Your task to perform on an android device: allow cookies in the chrome app Image 0: 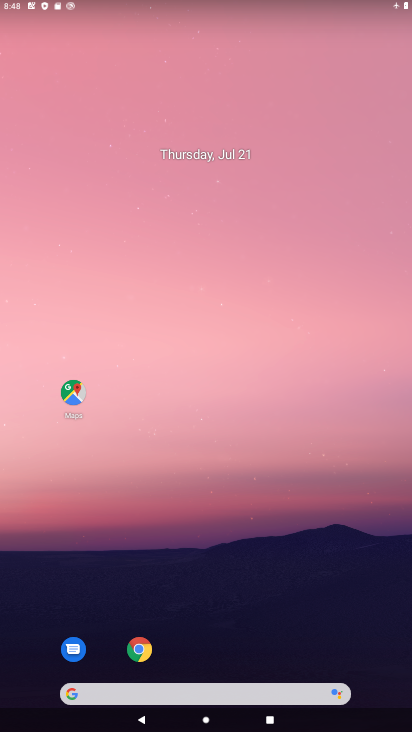
Step 0: click (133, 643)
Your task to perform on an android device: allow cookies in the chrome app Image 1: 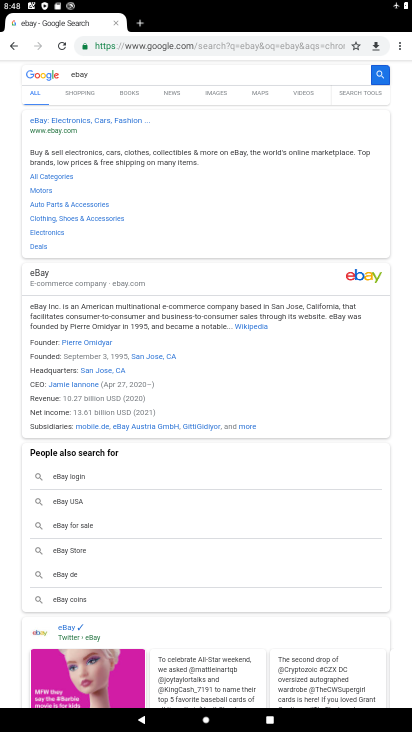
Step 1: click (398, 47)
Your task to perform on an android device: allow cookies in the chrome app Image 2: 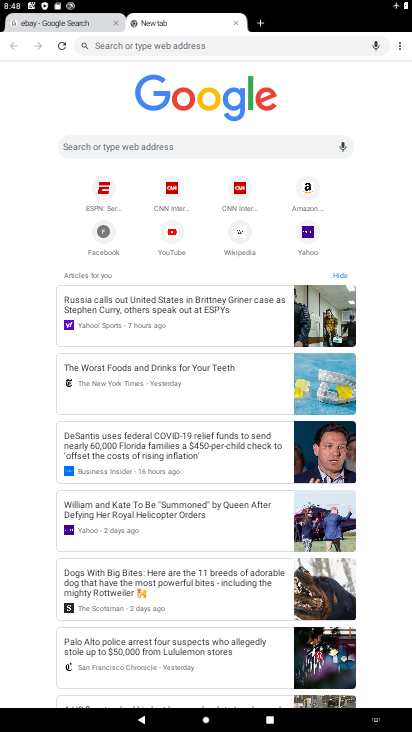
Step 2: click (400, 51)
Your task to perform on an android device: allow cookies in the chrome app Image 3: 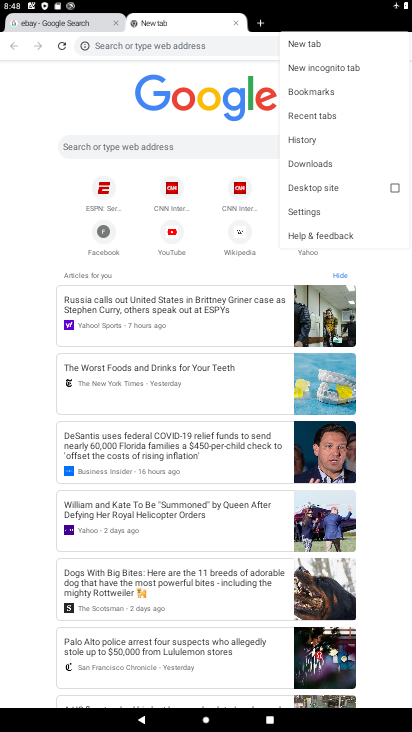
Step 3: click (304, 215)
Your task to perform on an android device: allow cookies in the chrome app Image 4: 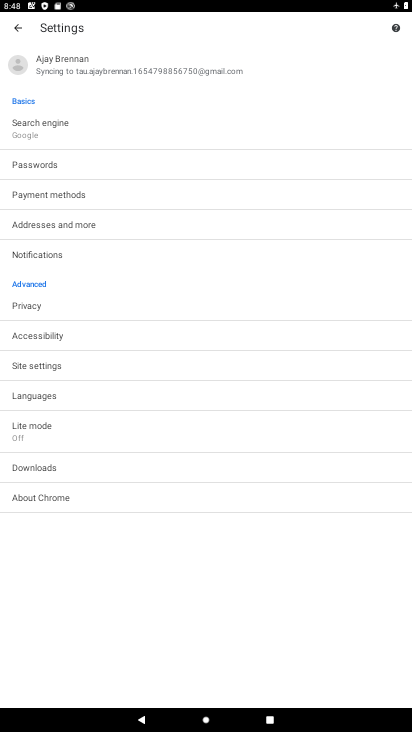
Step 4: click (55, 369)
Your task to perform on an android device: allow cookies in the chrome app Image 5: 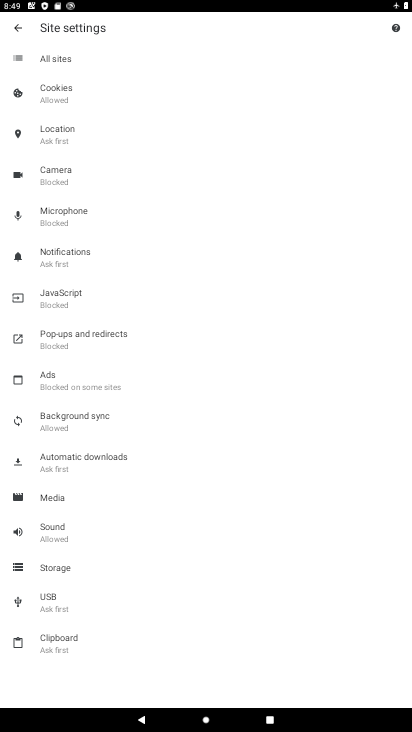
Step 5: click (57, 101)
Your task to perform on an android device: allow cookies in the chrome app Image 6: 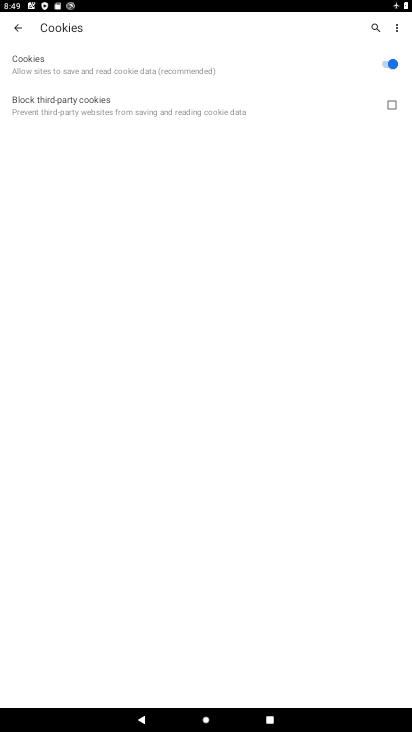
Step 6: task complete